Your task to perform on an android device: toggle data saver in the chrome app Image 0: 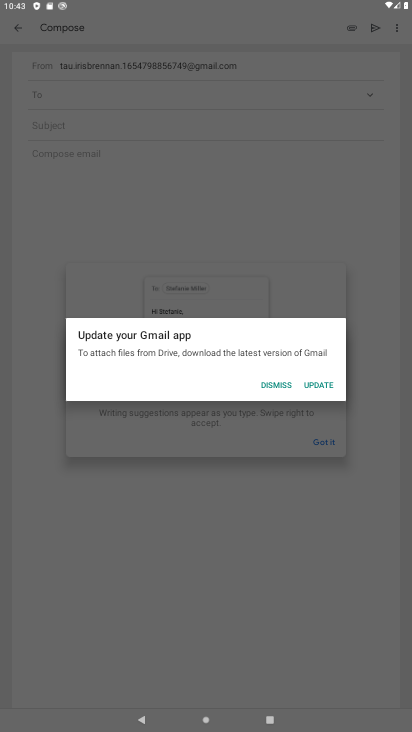
Step 0: press home button
Your task to perform on an android device: toggle data saver in the chrome app Image 1: 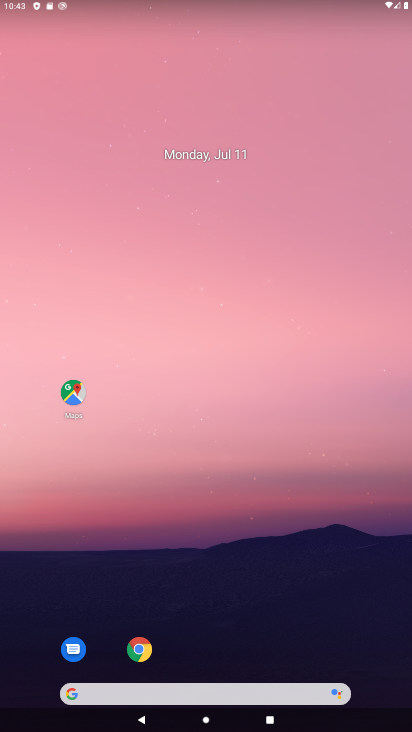
Step 1: click (142, 647)
Your task to perform on an android device: toggle data saver in the chrome app Image 2: 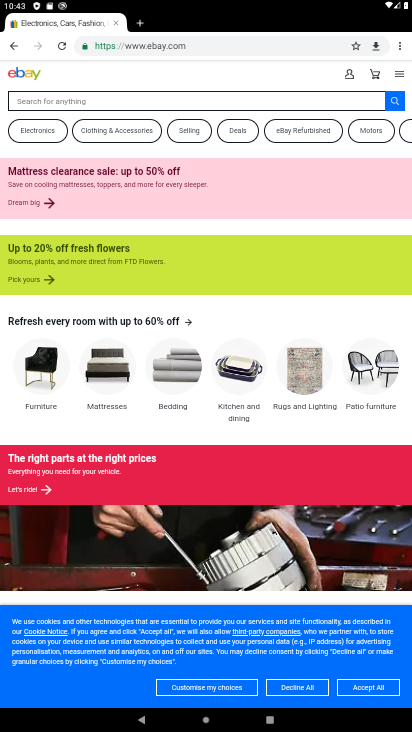
Step 2: click (401, 47)
Your task to perform on an android device: toggle data saver in the chrome app Image 3: 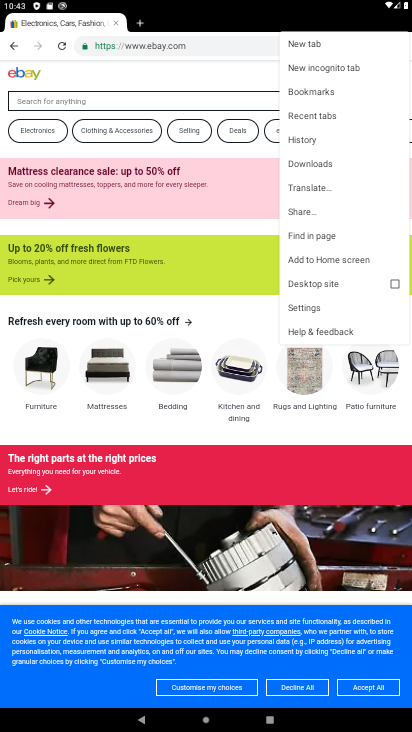
Step 3: click (305, 307)
Your task to perform on an android device: toggle data saver in the chrome app Image 4: 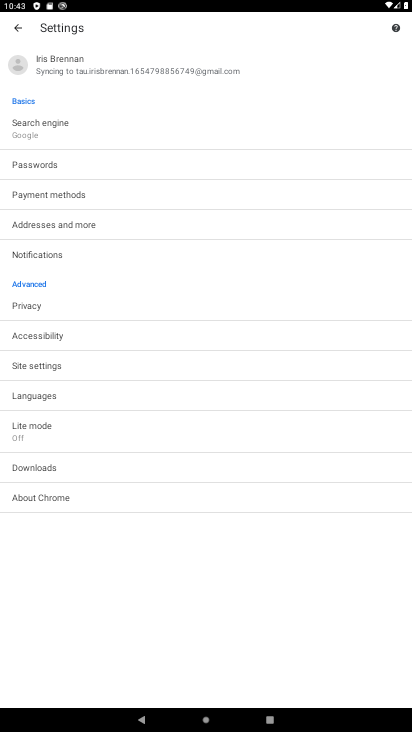
Step 4: click (41, 429)
Your task to perform on an android device: toggle data saver in the chrome app Image 5: 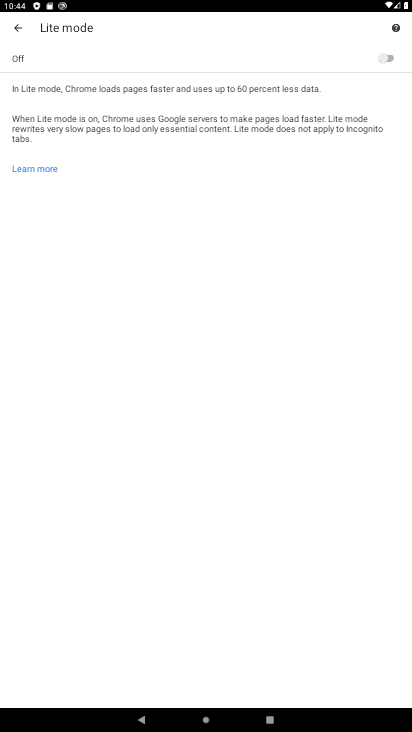
Step 5: click (379, 60)
Your task to perform on an android device: toggle data saver in the chrome app Image 6: 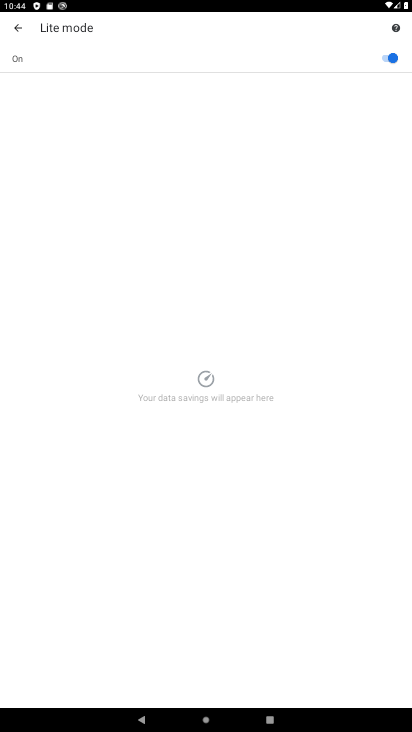
Step 6: task complete